Your task to perform on an android device: Go to display settings Image 0: 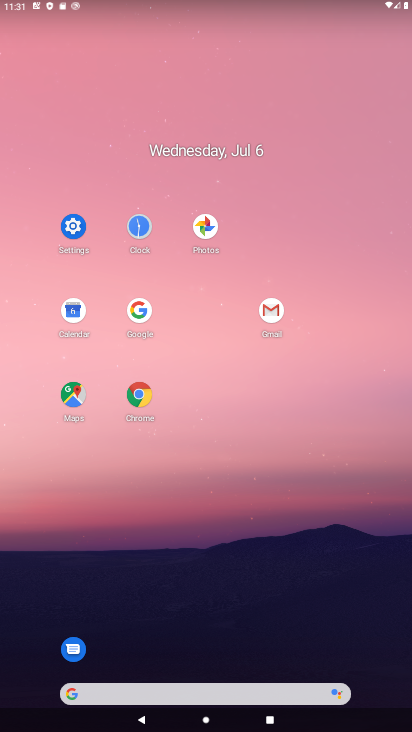
Step 0: click (78, 215)
Your task to perform on an android device: Go to display settings Image 1: 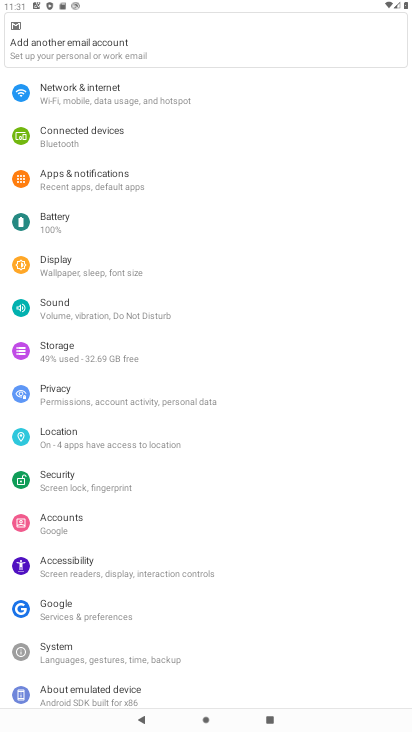
Step 1: click (120, 262)
Your task to perform on an android device: Go to display settings Image 2: 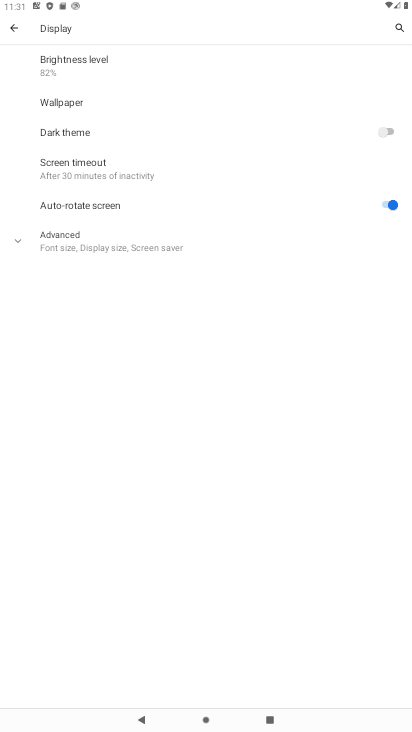
Step 2: task complete